Your task to perform on an android device: Go to accessibility settings Image 0: 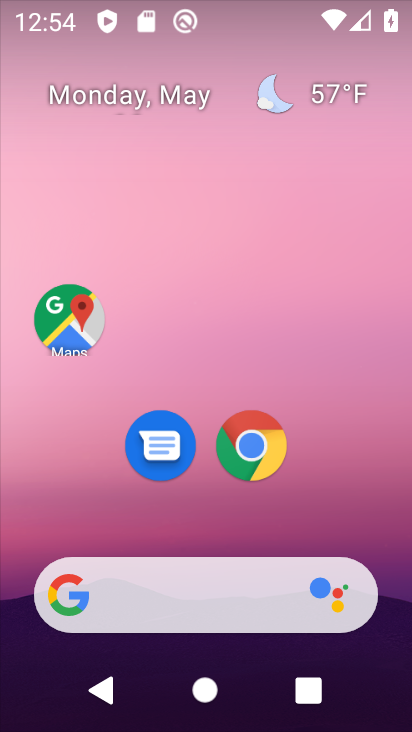
Step 0: drag from (390, 616) to (246, 3)
Your task to perform on an android device: Go to accessibility settings Image 1: 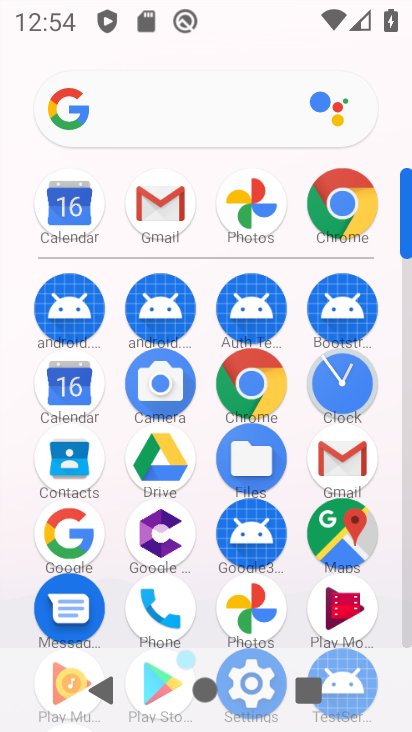
Step 1: drag from (289, 617) to (308, 370)
Your task to perform on an android device: Go to accessibility settings Image 2: 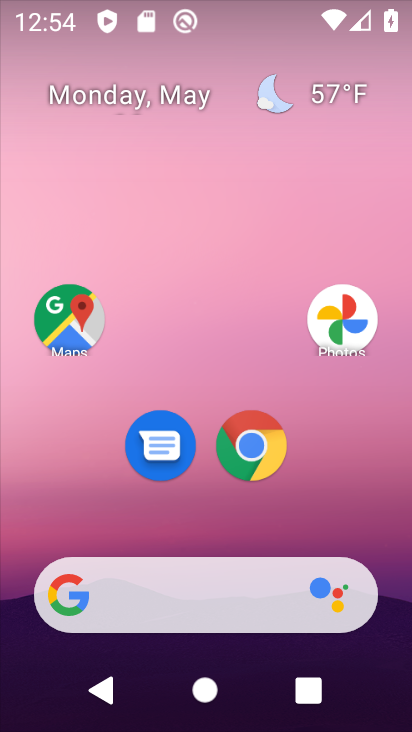
Step 2: drag from (335, 328) to (242, 101)
Your task to perform on an android device: Go to accessibility settings Image 3: 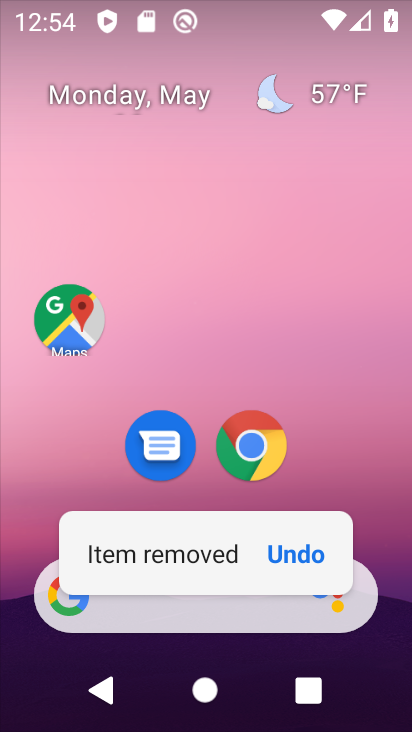
Step 3: drag from (353, 472) to (240, 12)
Your task to perform on an android device: Go to accessibility settings Image 4: 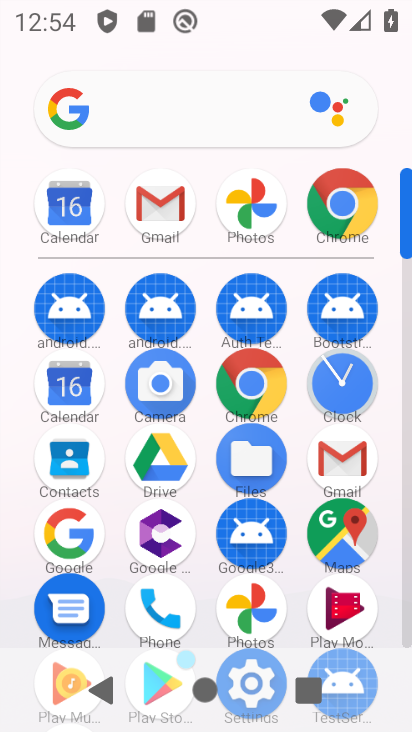
Step 4: drag from (203, 614) to (209, 346)
Your task to perform on an android device: Go to accessibility settings Image 5: 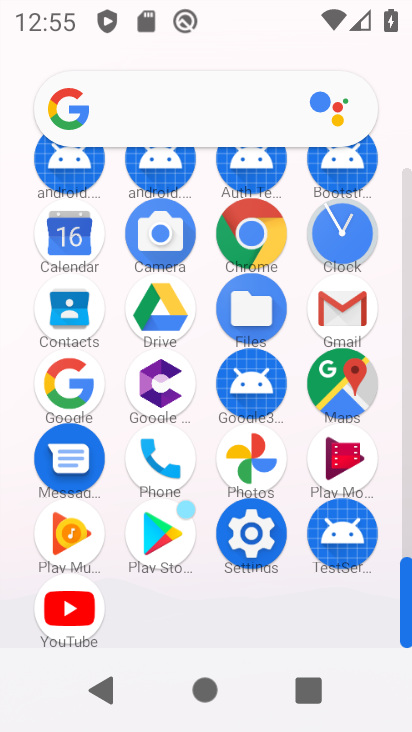
Step 5: click (253, 556)
Your task to perform on an android device: Go to accessibility settings Image 6: 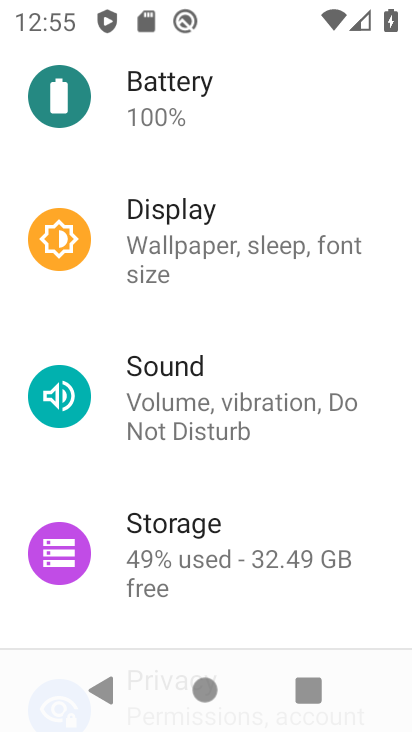
Step 6: drag from (214, 614) to (269, 160)
Your task to perform on an android device: Go to accessibility settings Image 7: 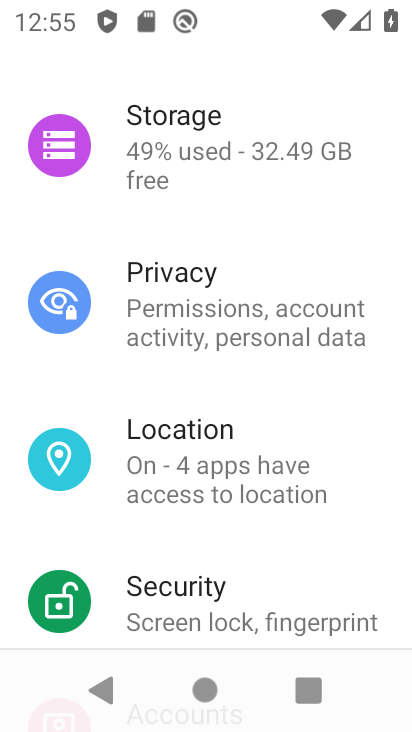
Step 7: drag from (177, 589) to (270, 216)
Your task to perform on an android device: Go to accessibility settings Image 8: 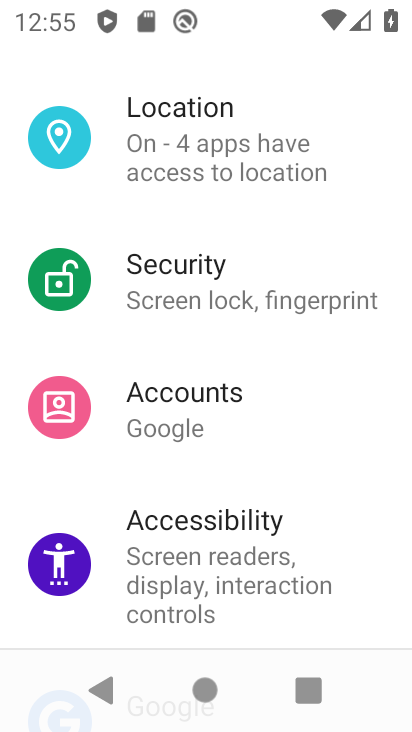
Step 8: click (207, 575)
Your task to perform on an android device: Go to accessibility settings Image 9: 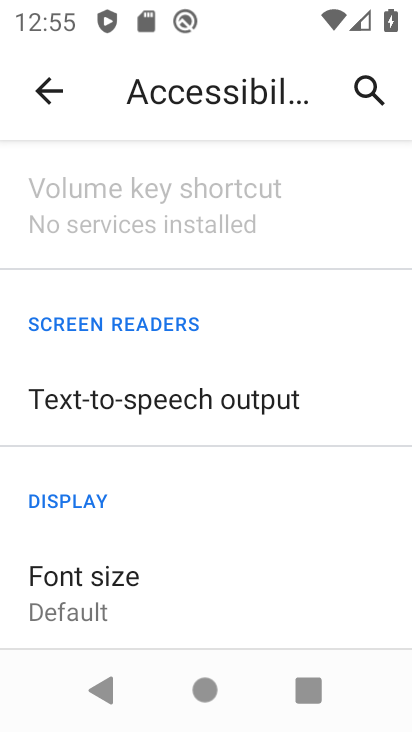
Step 9: task complete